Your task to perform on an android device: empty trash in google photos Image 0: 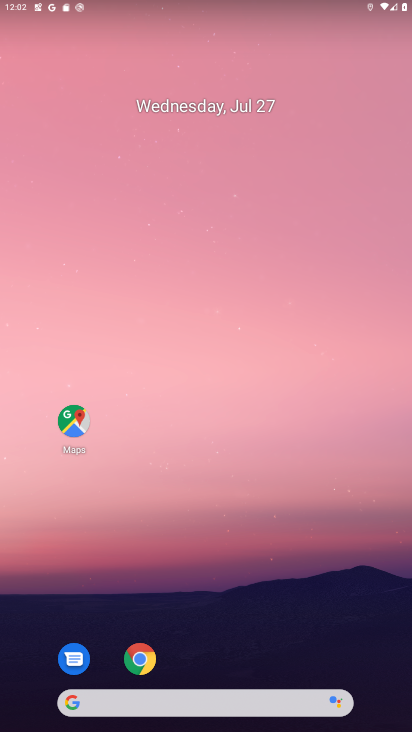
Step 0: drag from (196, 687) to (223, 22)
Your task to perform on an android device: empty trash in google photos Image 1: 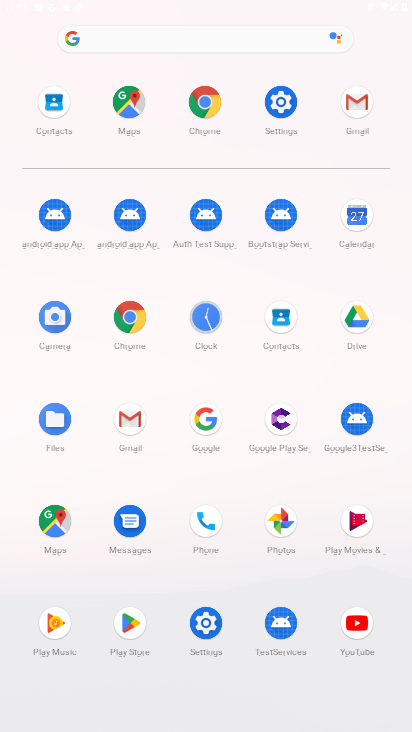
Step 1: click (290, 525)
Your task to perform on an android device: empty trash in google photos Image 2: 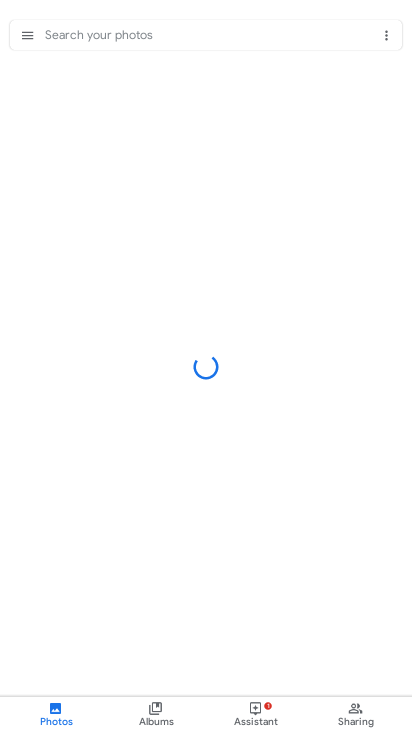
Step 2: click (24, 27)
Your task to perform on an android device: empty trash in google photos Image 3: 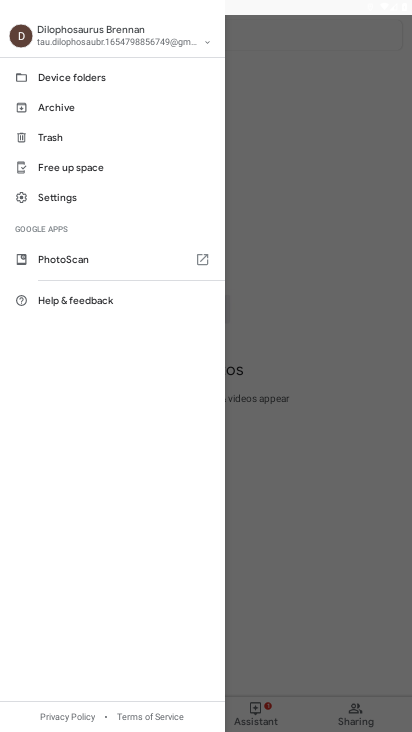
Step 3: click (55, 134)
Your task to perform on an android device: empty trash in google photos Image 4: 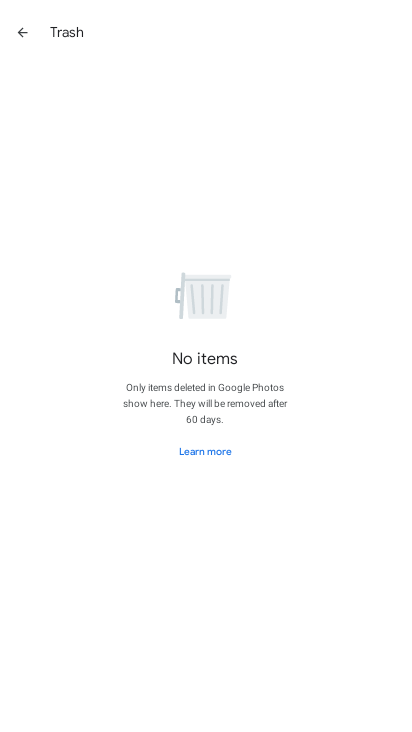
Step 4: task complete